Your task to perform on an android device: turn on sleep mode Image 0: 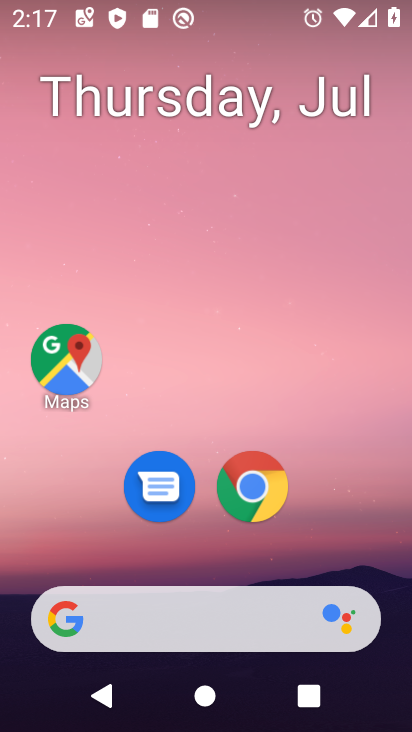
Step 0: drag from (126, 548) to (201, 10)
Your task to perform on an android device: turn on sleep mode Image 1: 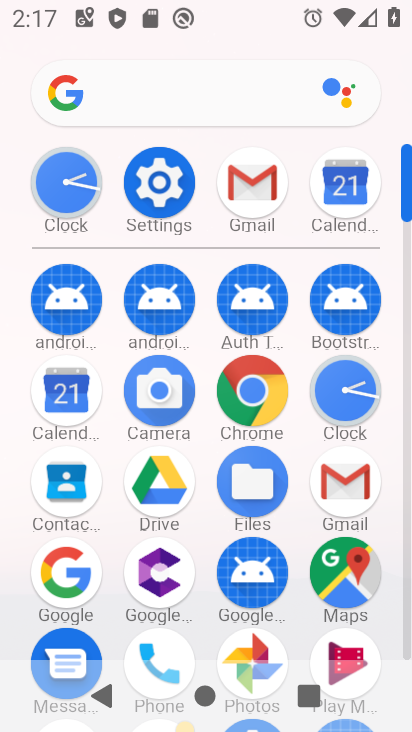
Step 1: click (152, 154)
Your task to perform on an android device: turn on sleep mode Image 2: 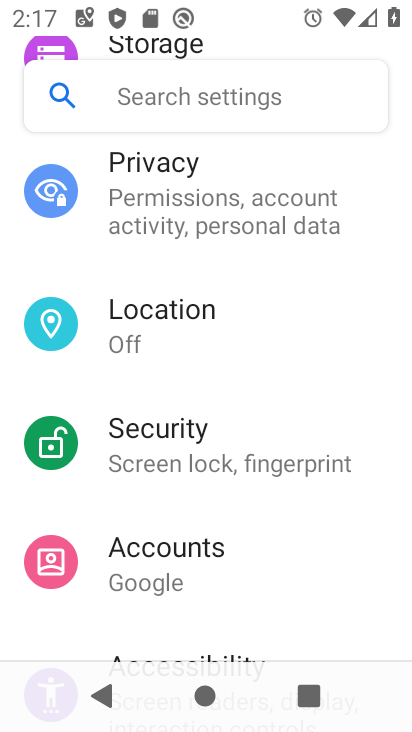
Step 2: click (223, 98)
Your task to perform on an android device: turn on sleep mode Image 3: 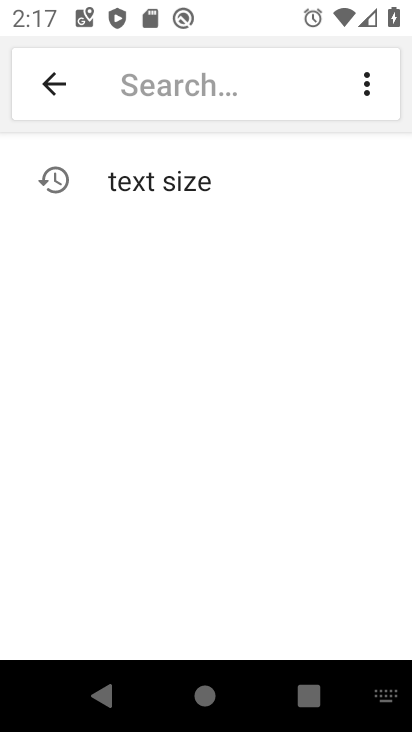
Step 3: type "sleep mode"
Your task to perform on an android device: turn on sleep mode Image 4: 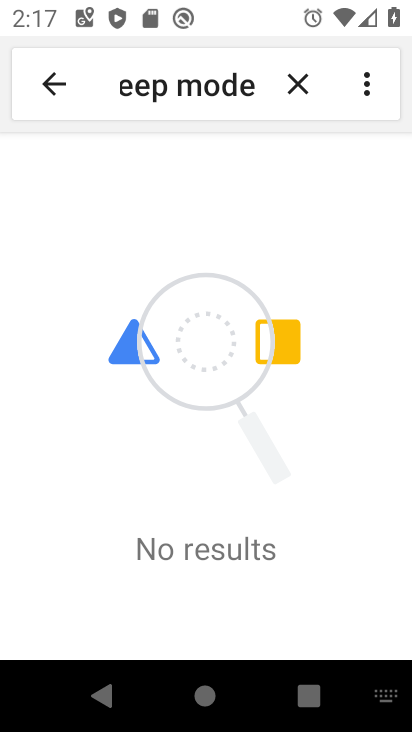
Step 4: task complete